Your task to perform on an android device: delete browsing data in the chrome app Image 0: 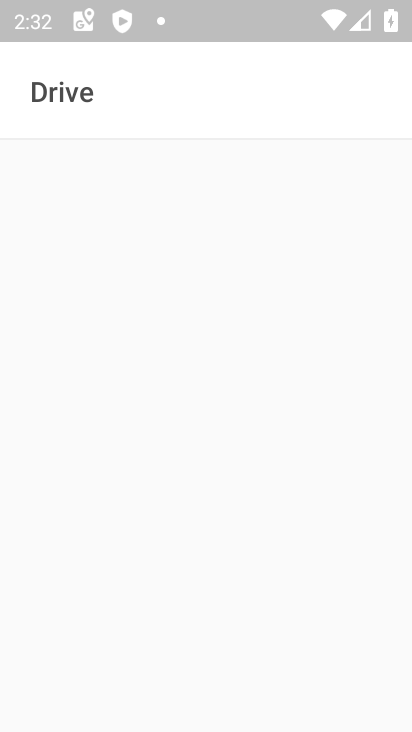
Step 0: press home button
Your task to perform on an android device: delete browsing data in the chrome app Image 1: 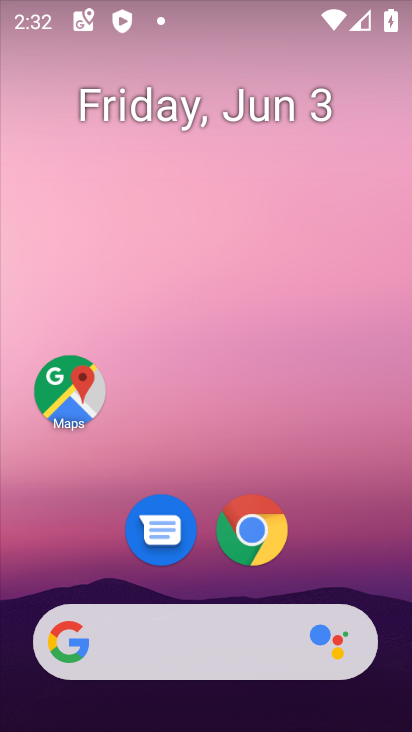
Step 1: click (254, 539)
Your task to perform on an android device: delete browsing data in the chrome app Image 2: 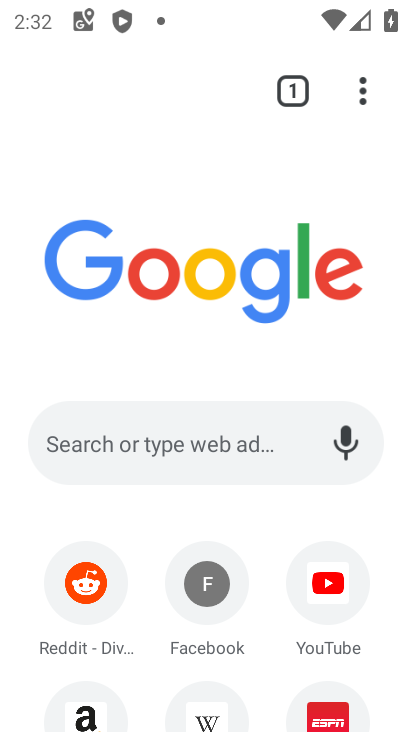
Step 2: click (364, 83)
Your task to perform on an android device: delete browsing data in the chrome app Image 3: 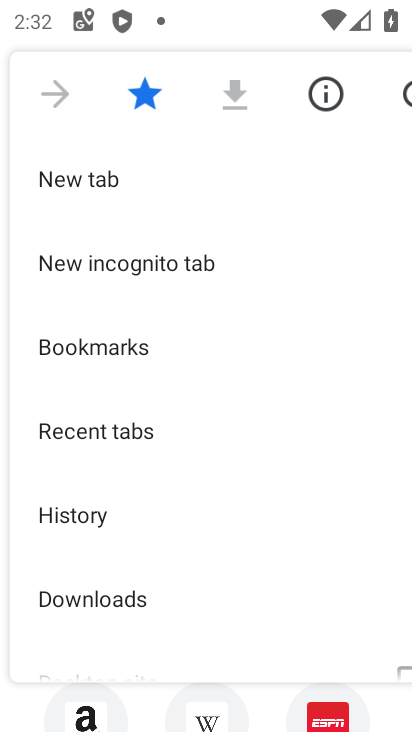
Step 3: drag from (265, 459) to (245, 344)
Your task to perform on an android device: delete browsing data in the chrome app Image 4: 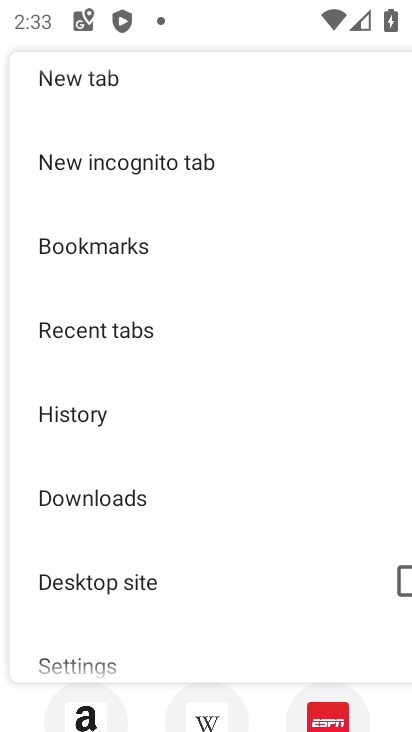
Step 4: click (100, 409)
Your task to perform on an android device: delete browsing data in the chrome app Image 5: 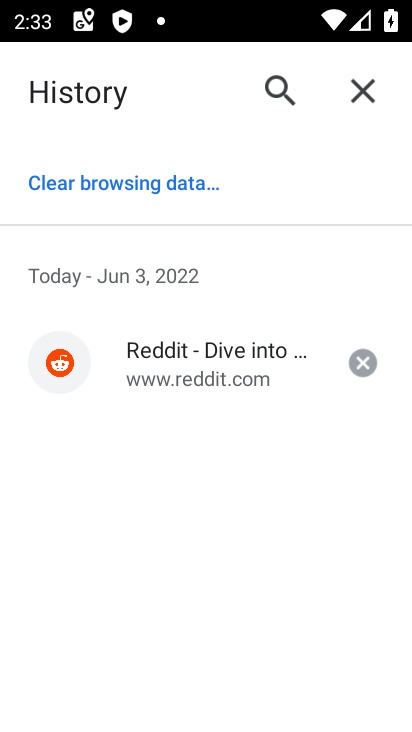
Step 5: click (143, 175)
Your task to perform on an android device: delete browsing data in the chrome app Image 6: 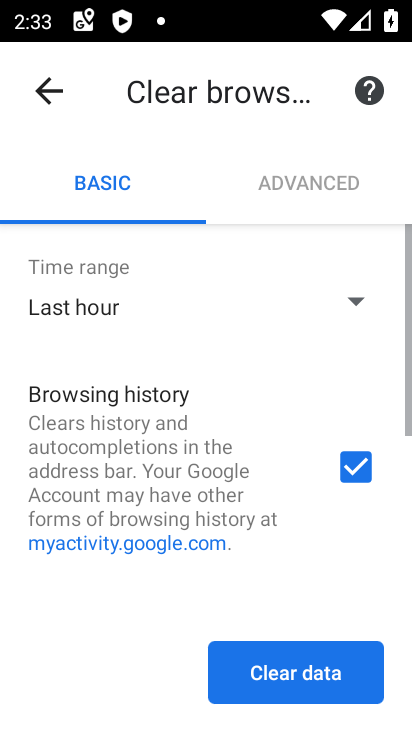
Step 6: click (295, 679)
Your task to perform on an android device: delete browsing data in the chrome app Image 7: 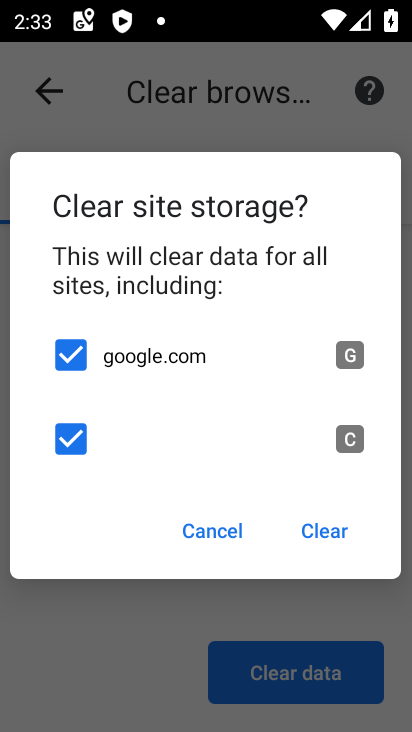
Step 7: click (328, 522)
Your task to perform on an android device: delete browsing data in the chrome app Image 8: 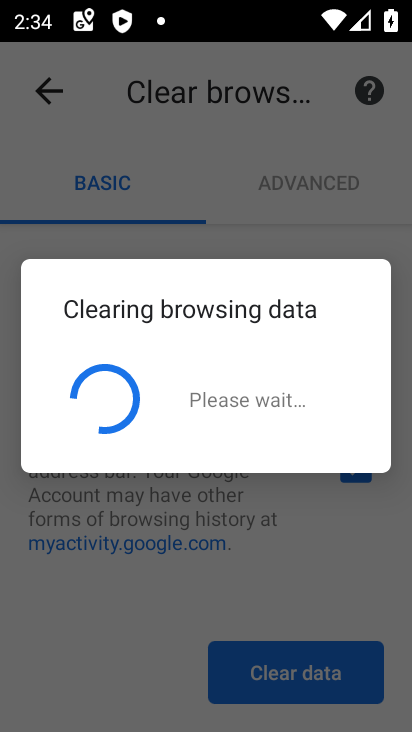
Step 8: task complete